Your task to perform on an android device: toggle priority inbox in the gmail app Image 0: 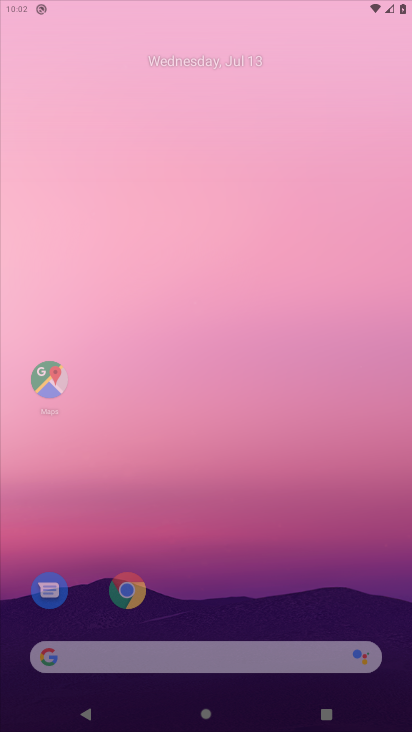
Step 0: click (159, 111)
Your task to perform on an android device: toggle priority inbox in the gmail app Image 1: 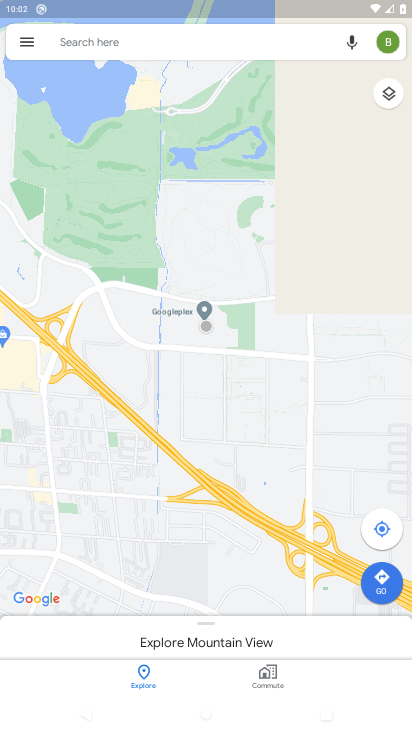
Step 1: press home button
Your task to perform on an android device: toggle priority inbox in the gmail app Image 2: 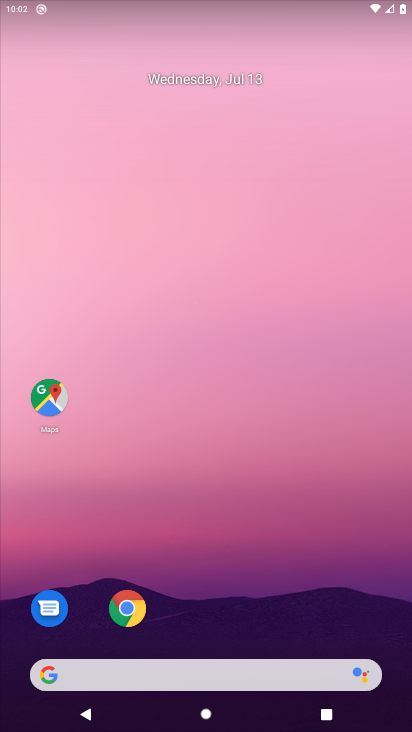
Step 2: drag from (32, 716) to (175, 117)
Your task to perform on an android device: toggle priority inbox in the gmail app Image 3: 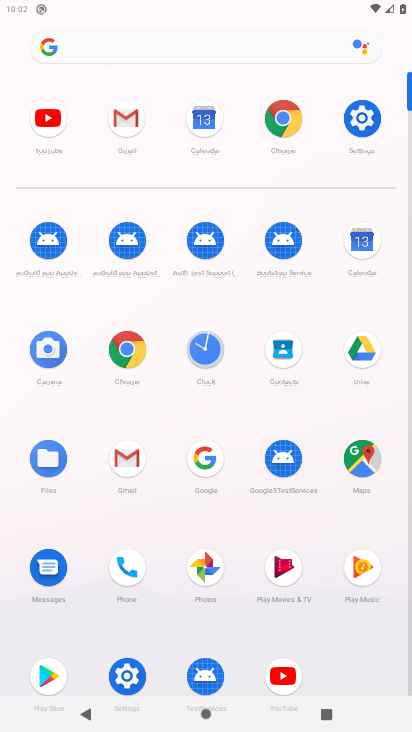
Step 3: click (131, 448)
Your task to perform on an android device: toggle priority inbox in the gmail app Image 4: 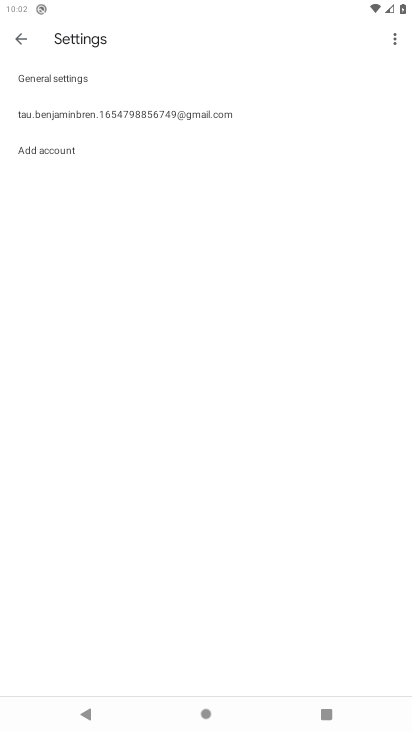
Step 4: click (27, 39)
Your task to perform on an android device: toggle priority inbox in the gmail app Image 5: 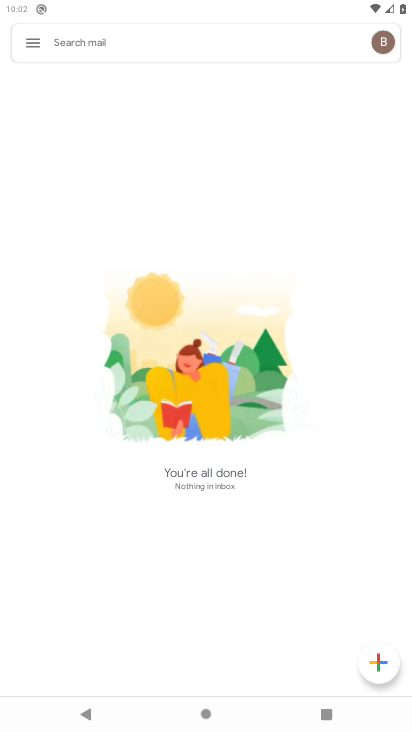
Step 5: click (38, 40)
Your task to perform on an android device: toggle priority inbox in the gmail app Image 6: 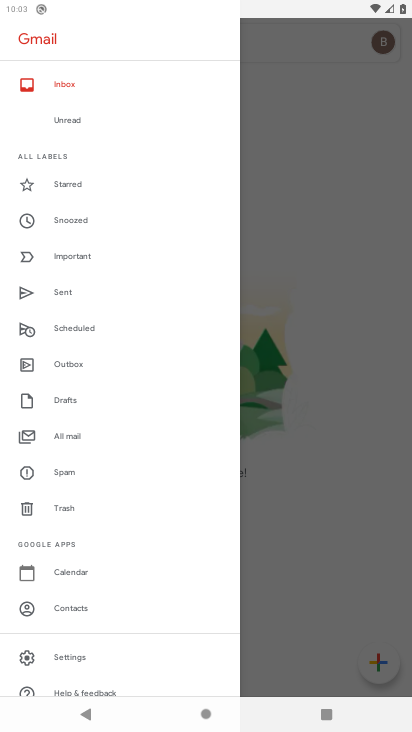
Step 6: drag from (112, 640) to (183, 310)
Your task to perform on an android device: toggle priority inbox in the gmail app Image 7: 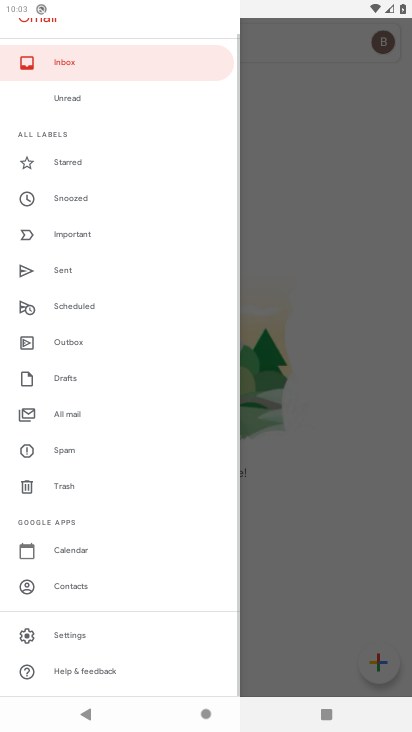
Step 7: click (75, 634)
Your task to perform on an android device: toggle priority inbox in the gmail app Image 8: 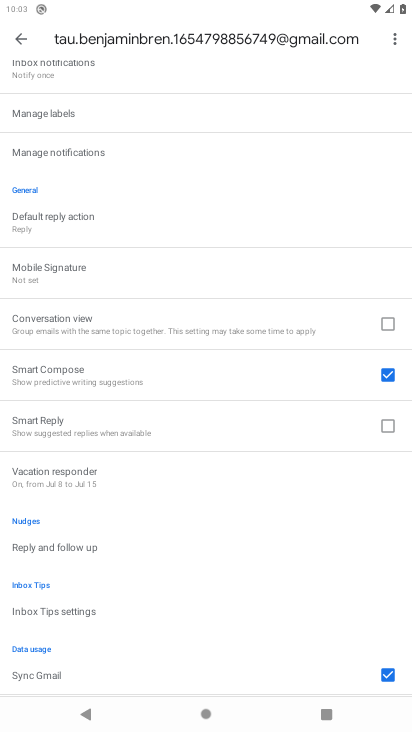
Step 8: task complete